Your task to perform on an android device: What's on my calendar today? Image 0: 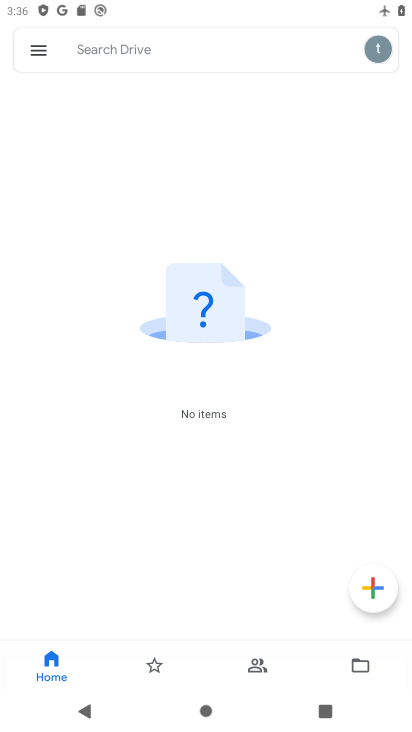
Step 0: press home button
Your task to perform on an android device: What's on my calendar today? Image 1: 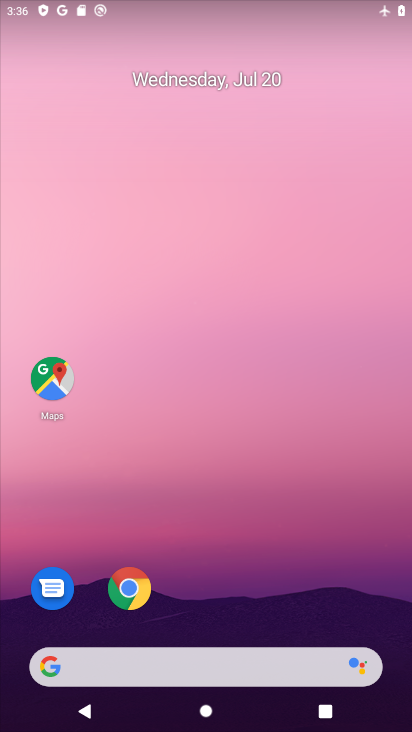
Step 1: click (196, 81)
Your task to perform on an android device: What's on my calendar today? Image 2: 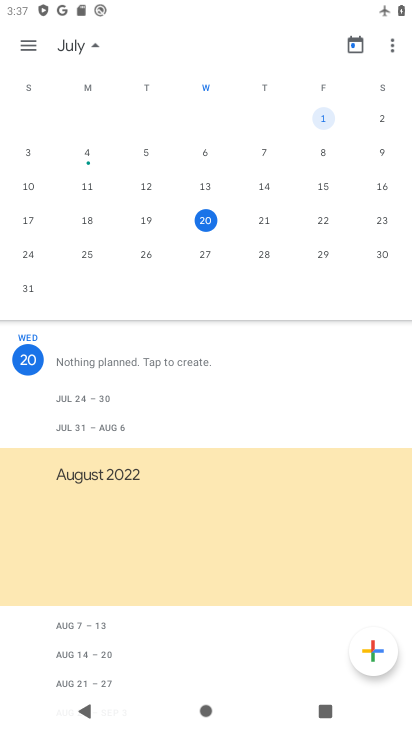
Step 2: task complete